Your task to perform on an android device: Go to network settings Image 0: 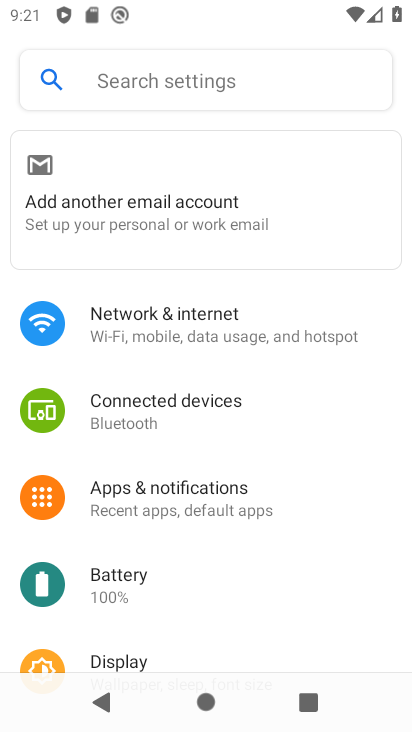
Step 0: task complete